Your task to perform on an android device: turn off translation in the chrome app Image 0: 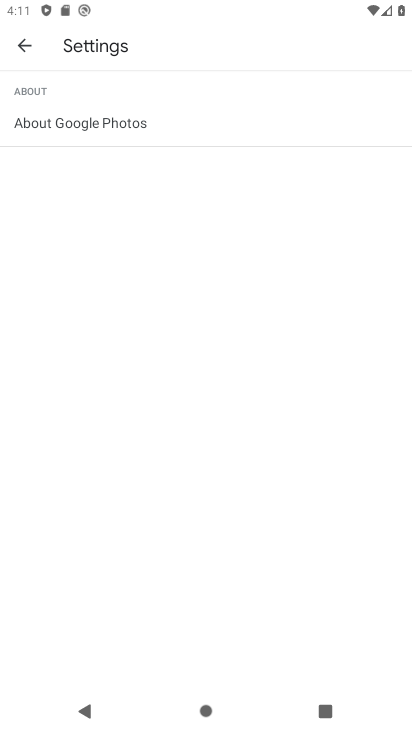
Step 0: press home button
Your task to perform on an android device: turn off translation in the chrome app Image 1: 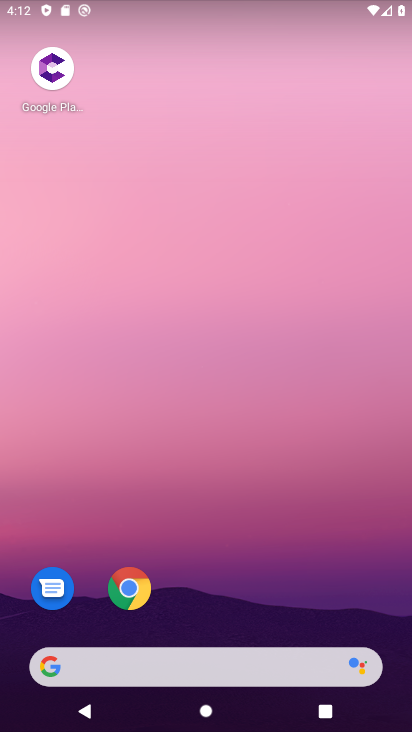
Step 1: click (123, 590)
Your task to perform on an android device: turn off translation in the chrome app Image 2: 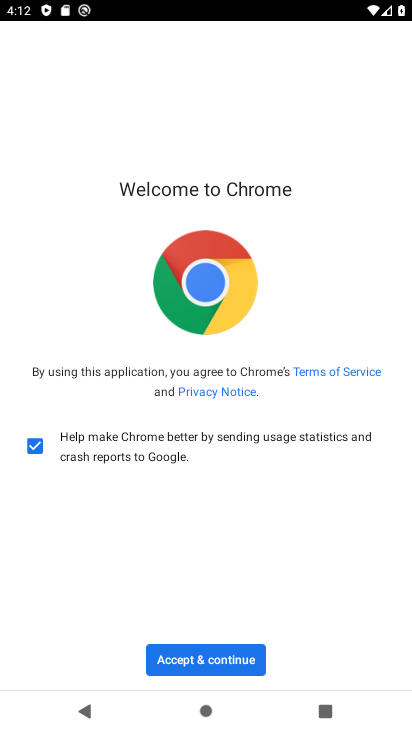
Step 2: click (210, 650)
Your task to perform on an android device: turn off translation in the chrome app Image 3: 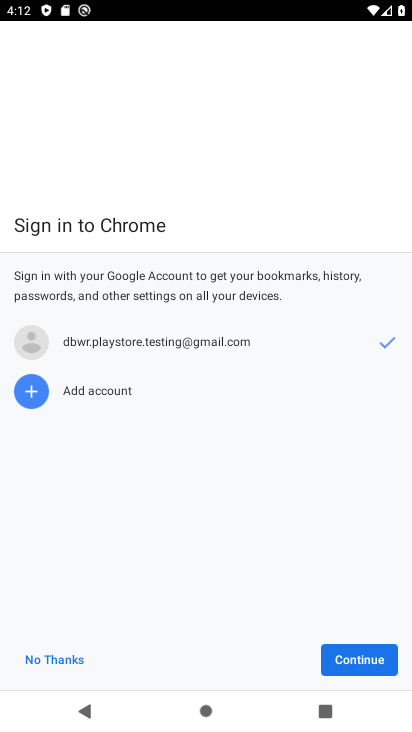
Step 3: click (365, 658)
Your task to perform on an android device: turn off translation in the chrome app Image 4: 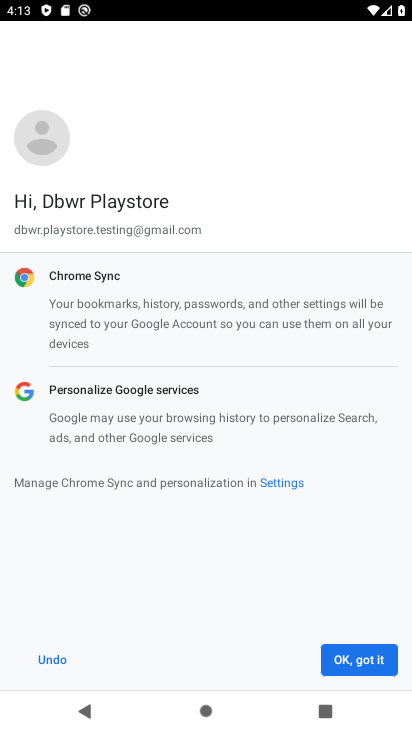
Step 4: press home button
Your task to perform on an android device: turn off translation in the chrome app Image 5: 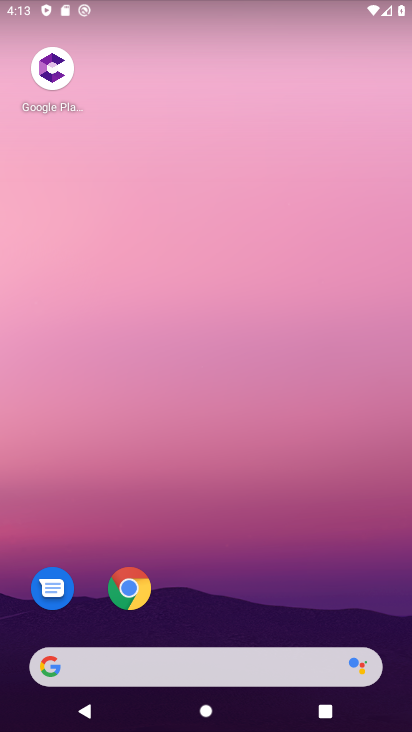
Step 5: click (126, 593)
Your task to perform on an android device: turn off translation in the chrome app Image 6: 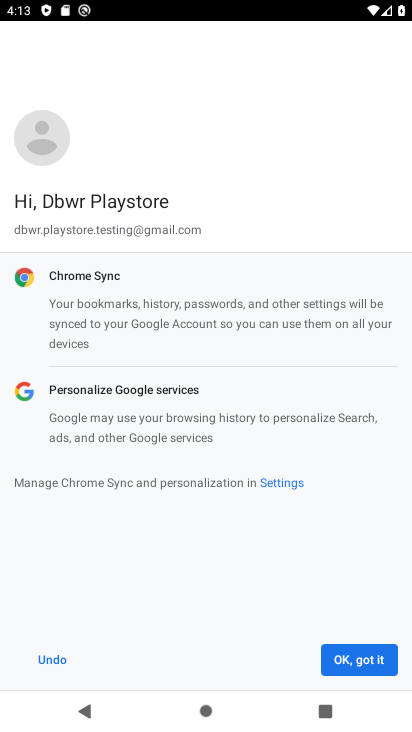
Step 6: click (355, 652)
Your task to perform on an android device: turn off translation in the chrome app Image 7: 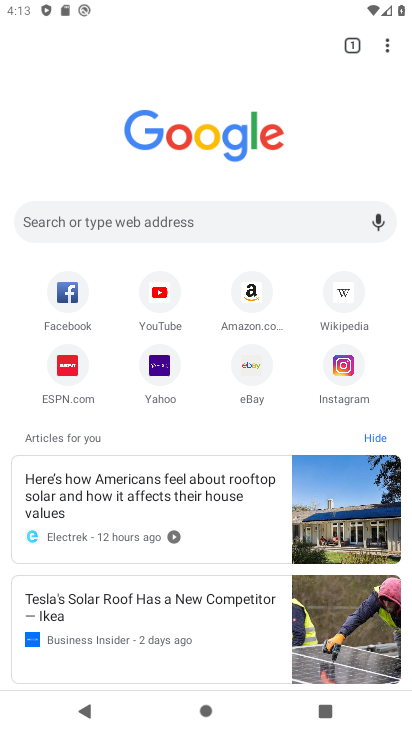
Step 7: click (377, 47)
Your task to perform on an android device: turn off translation in the chrome app Image 8: 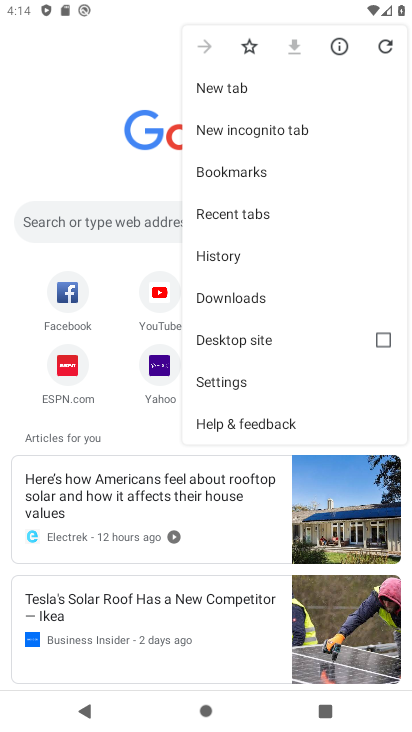
Step 8: click (377, 47)
Your task to perform on an android device: turn off translation in the chrome app Image 9: 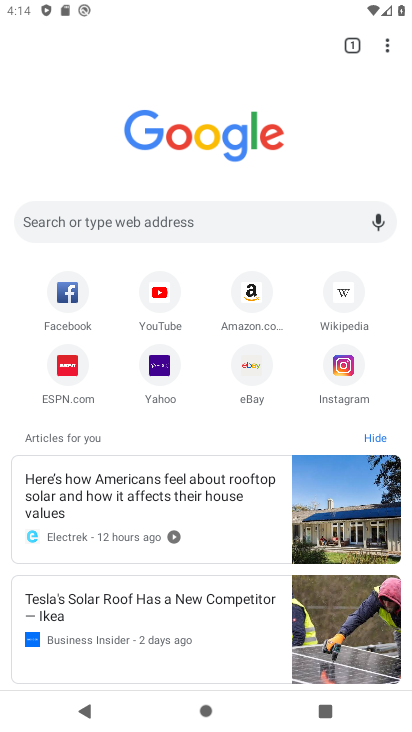
Step 9: click (384, 38)
Your task to perform on an android device: turn off translation in the chrome app Image 10: 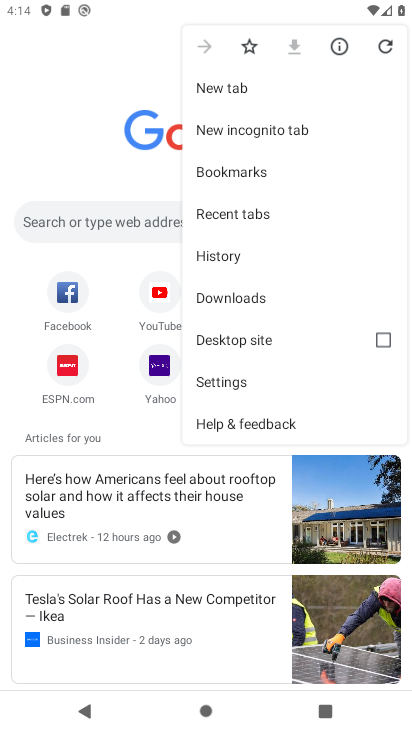
Step 10: click (251, 379)
Your task to perform on an android device: turn off translation in the chrome app Image 11: 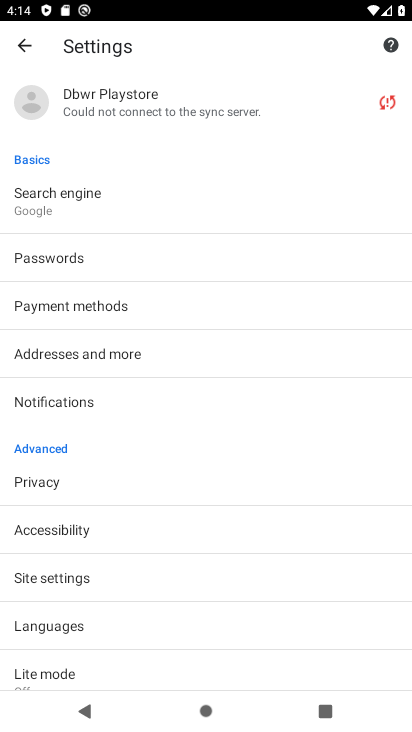
Step 11: click (147, 612)
Your task to perform on an android device: turn off translation in the chrome app Image 12: 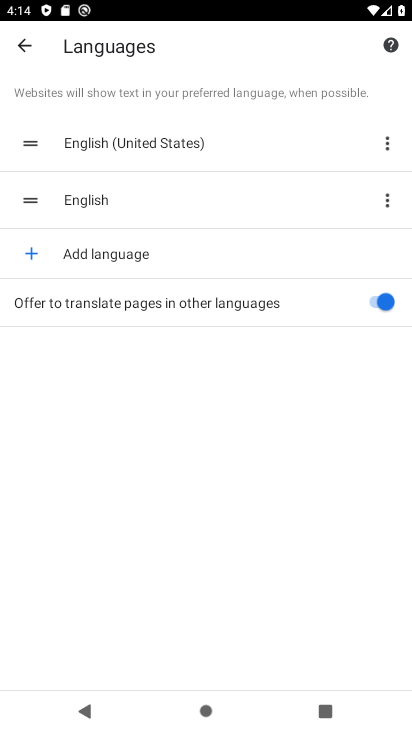
Step 12: click (376, 291)
Your task to perform on an android device: turn off translation in the chrome app Image 13: 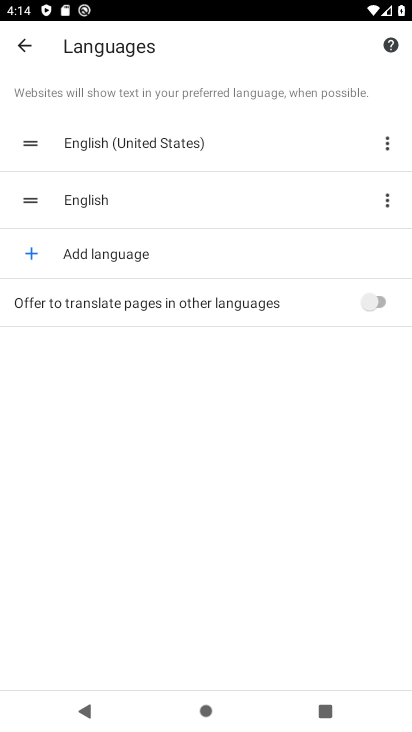
Step 13: task complete